Your task to perform on an android device: check storage Image 0: 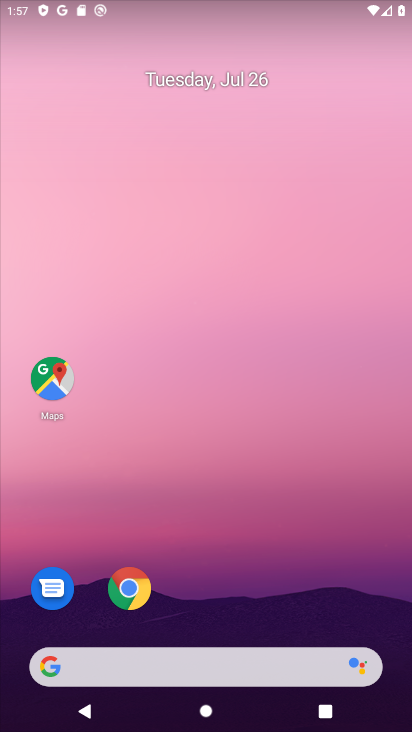
Step 0: drag from (317, 690) to (245, 22)
Your task to perform on an android device: check storage Image 1: 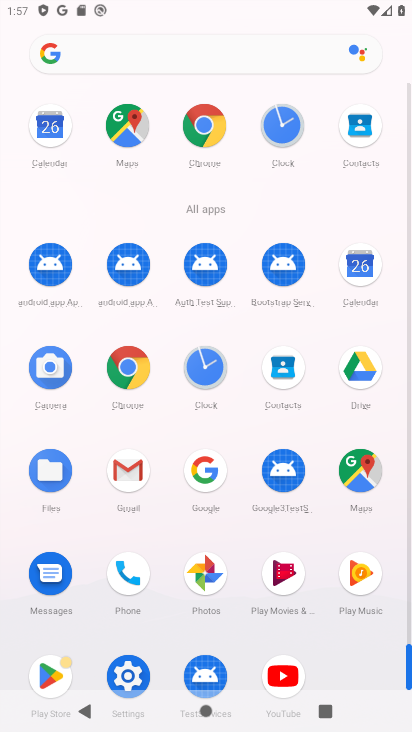
Step 1: click (138, 670)
Your task to perform on an android device: check storage Image 2: 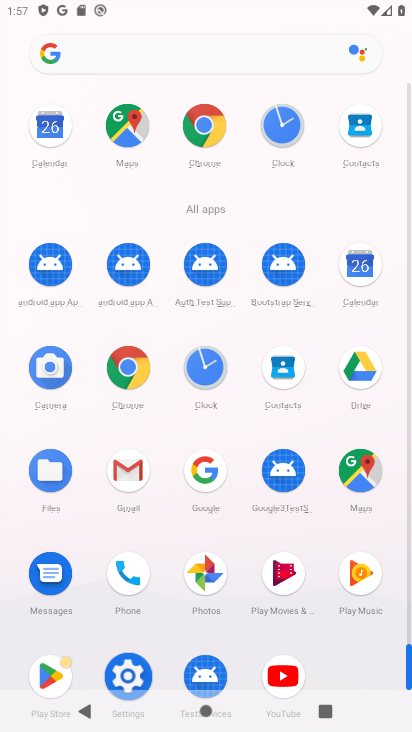
Step 2: click (138, 670)
Your task to perform on an android device: check storage Image 3: 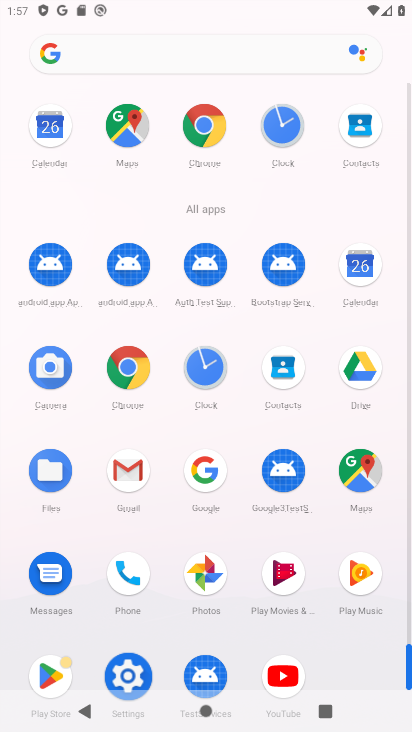
Step 3: click (138, 670)
Your task to perform on an android device: check storage Image 4: 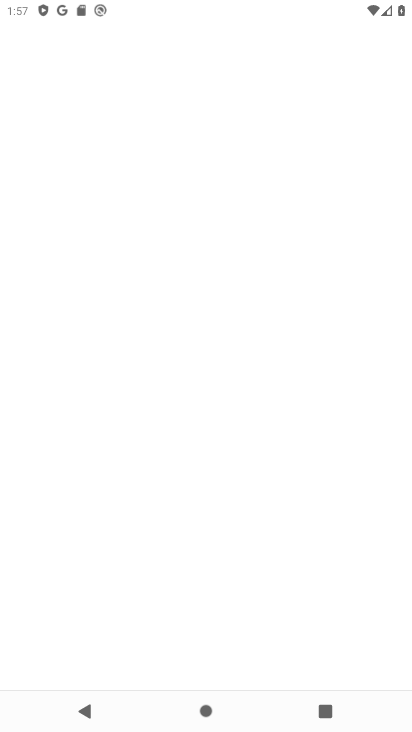
Step 4: click (138, 670)
Your task to perform on an android device: check storage Image 5: 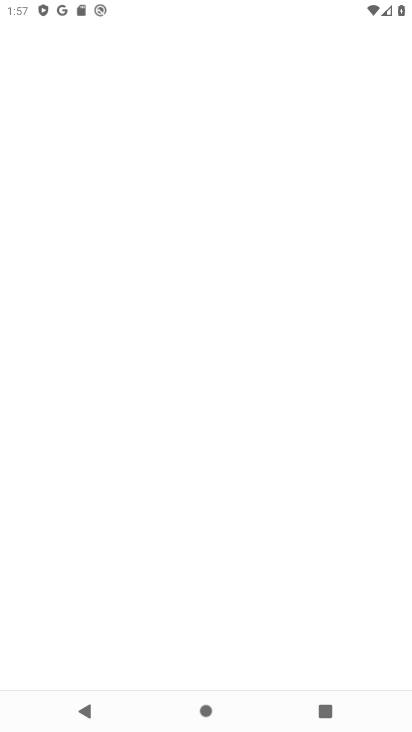
Step 5: click (141, 665)
Your task to perform on an android device: check storage Image 6: 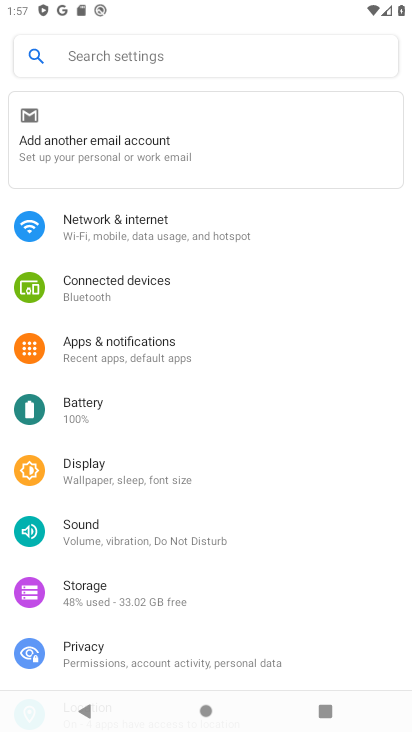
Step 6: click (89, 575)
Your task to perform on an android device: check storage Image 7: 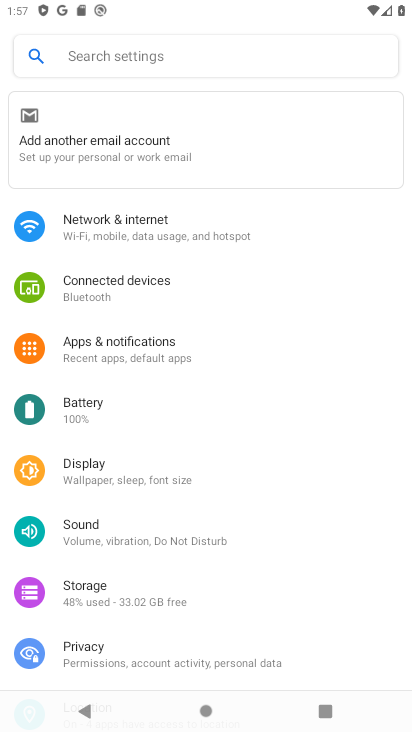
Step 7: click (94, 584)
Your task to perform on an android device: check storage Image 8: 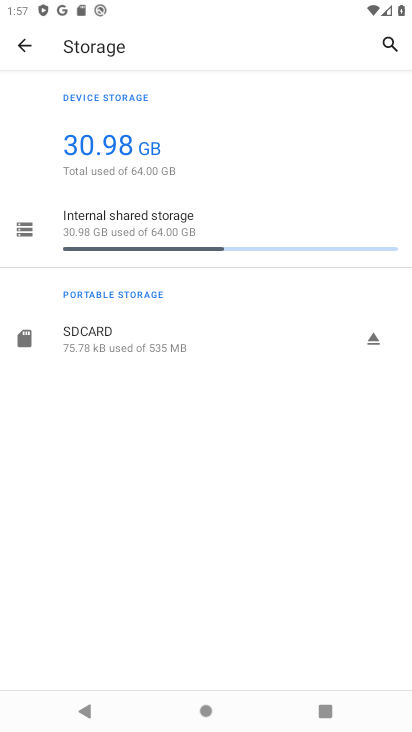
Step 8: task complete